Your task to perform on an android device: turn off picture-in-picture Image 0: 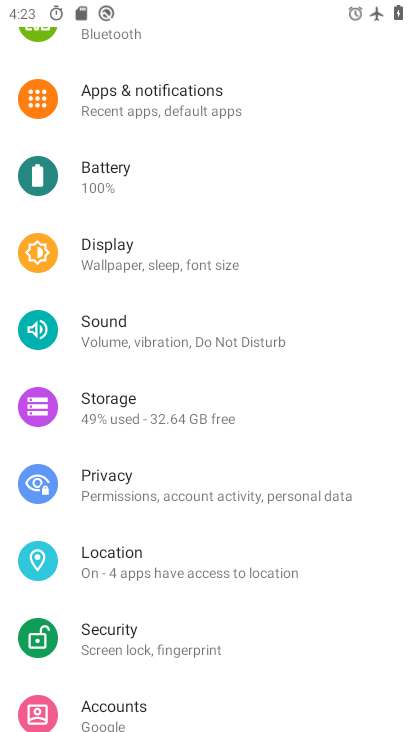
Step 0: press home button
Your task to perform on an android device: turn off picture-in-picture Image 1: 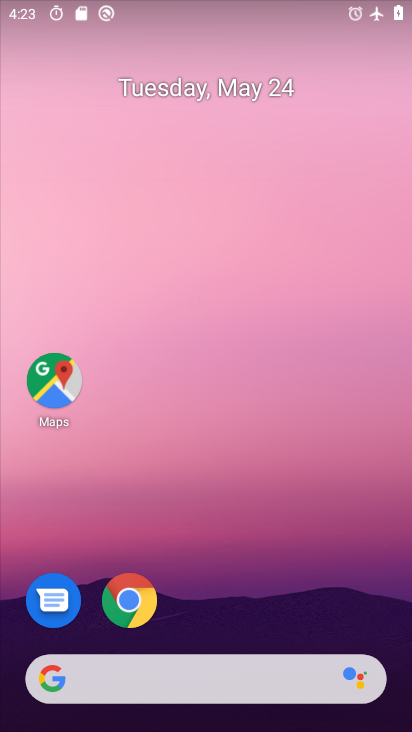
Step 1: drag from (212, 656) to (254, 61)
Your task to perform on an android device: turn off picture-in-picture Image 2: 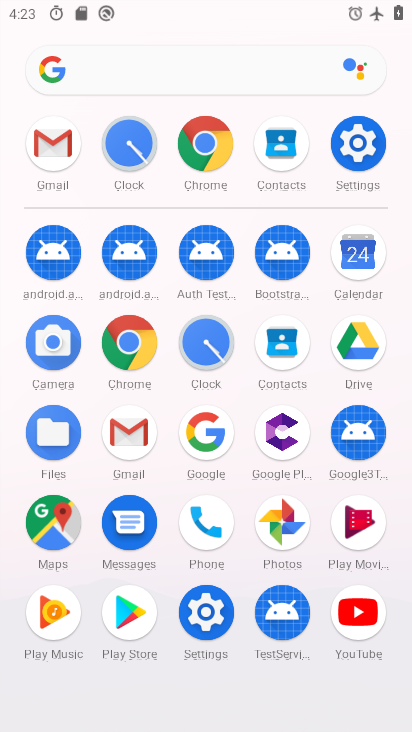
Step 2: click (346, 145)
Your task to perform on an android device: turn off picture-in-picture Image 3: 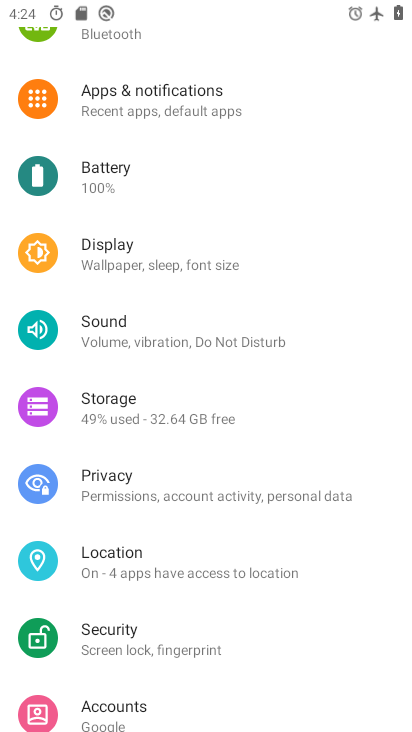
Step 3: drag from (64, 667) to (127, 117)
Your task to perform on an android device: turn off picture-in-picture Image 4: 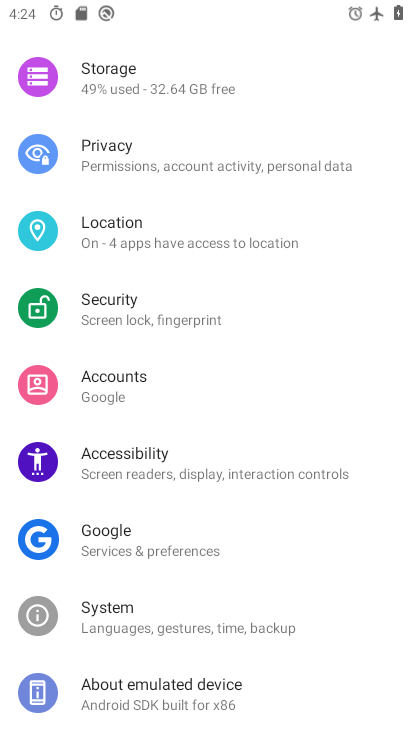
Step 4: click (102, 618)
Your task to perform on an android device: turn off picture-in-picture Image 5: 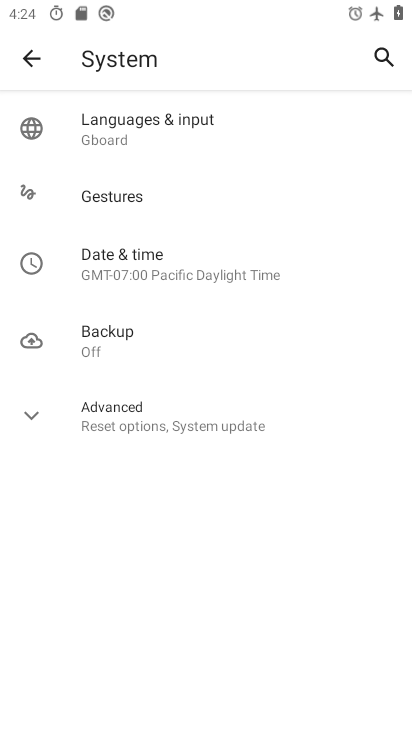
Step 5: press back button
Your task to perform on an android device: turn off picture-in-picture Image 6: 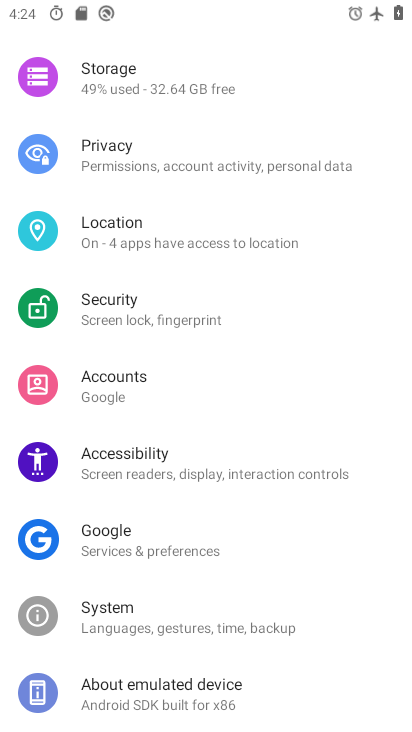
Step 6: drag from (181, 105) to (153, 723)
Your task to perform on an android device: turn off picture-in-picture Image 7: 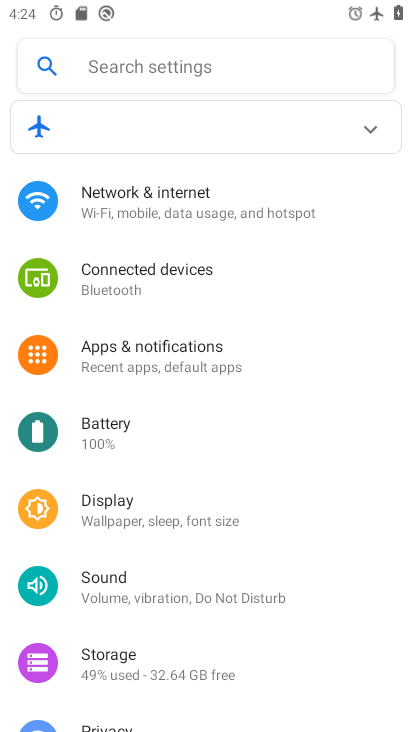
Step 7: click (166, 343)
Your task to perform on an android device: turn off picture-in-picture Image 8: 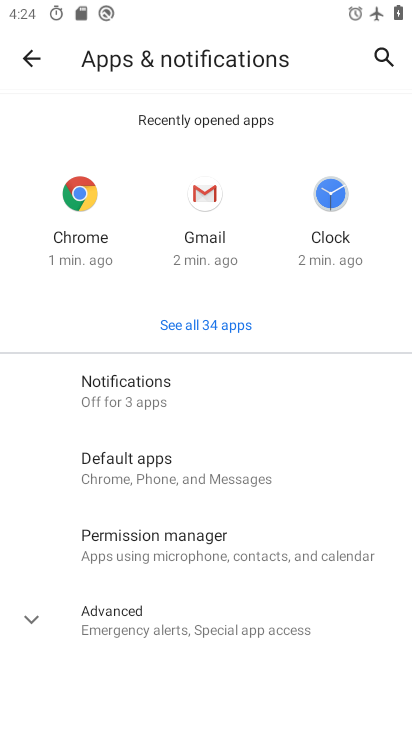
Step 8: click (158, 631)
Your task to perform on an android device: turn off picture-in-picture Image 9: 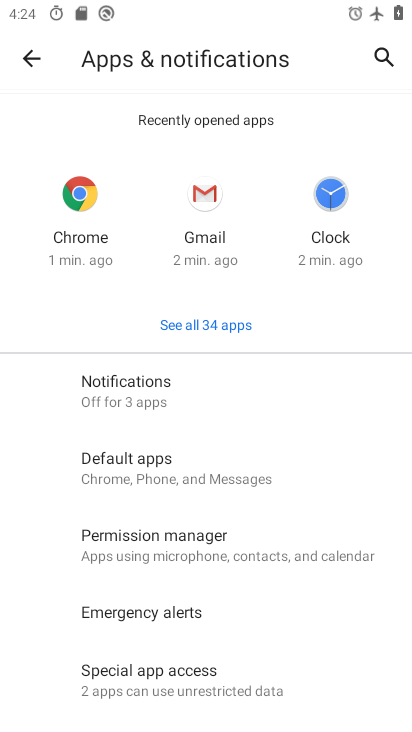
Step 9: drag from (195, 396) to (206, 347)
Your task to perform on an android device: turn off picture-in-picture Image 10: 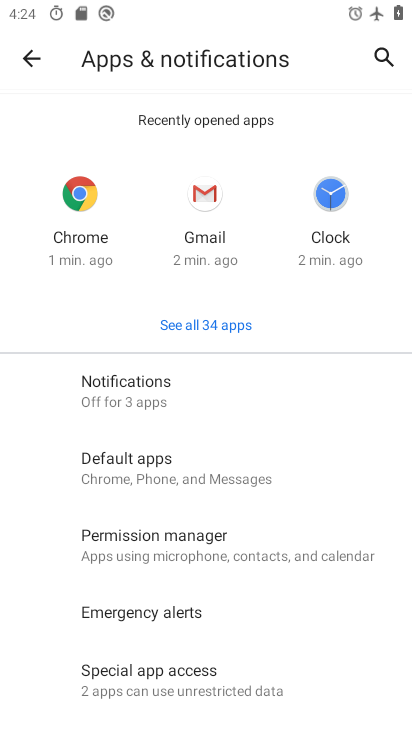
Step 10: click (115, 688)
Your task to perform on an android device: turn off picture-in-picture Image 11: 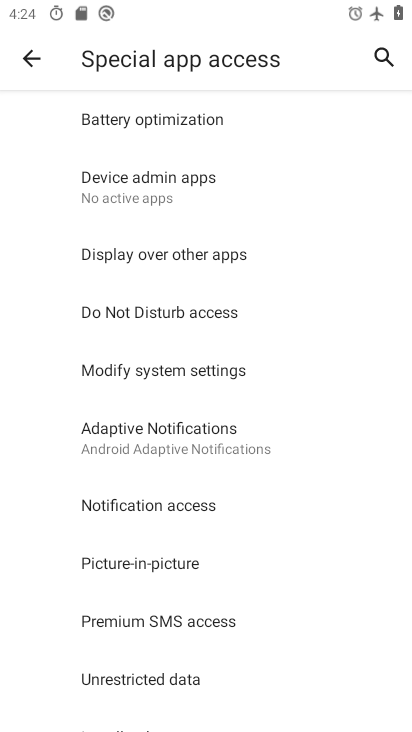
Step 11: click (139, 561)
Your task to perform on an android device: turn off picture-in-picture Image 12: 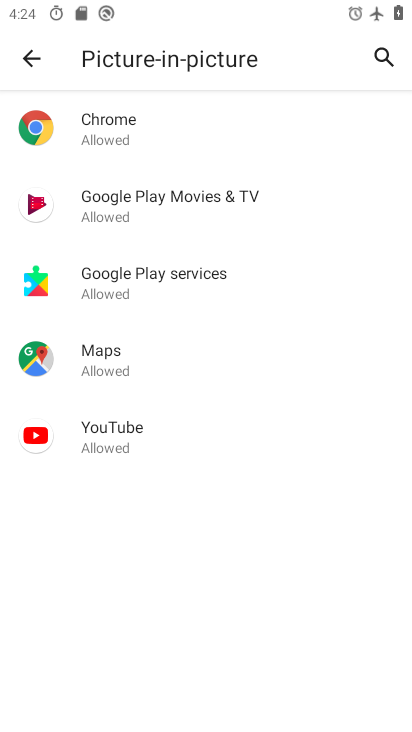
Step 12: click (93, 139)
Your task to perform on an android device: turn off picture-in-picture Image 13: 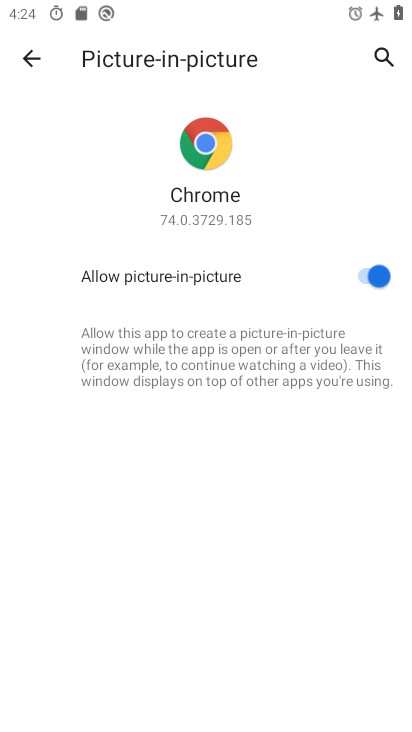
Step 13: click (365, 277)
Your task to perform on an android device: turn off picture-in-picture Image 14: 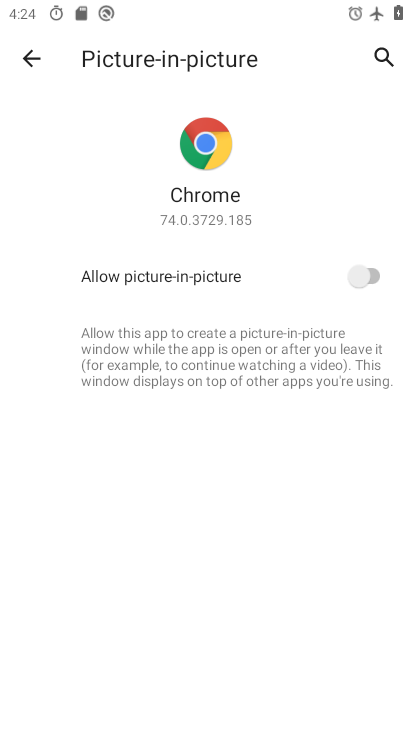
Step 14: press back button
Your task to perform on an android device: turn off picture-in-picture Image 15: 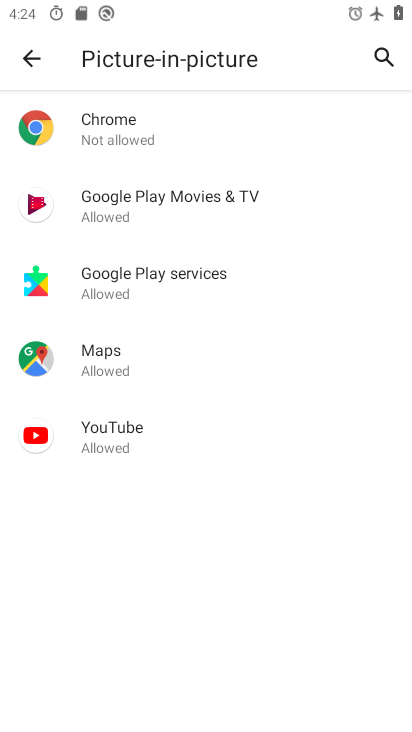
Step 15: click (271, 221)
Your task to perform on an android device: turn off picture-in-picture Image 16: 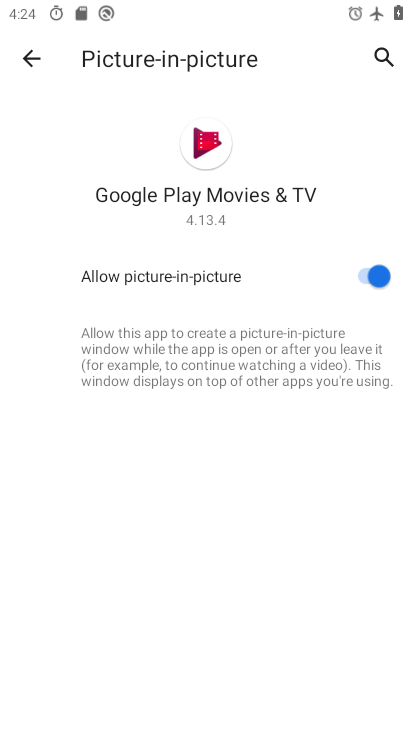
Step 16: click (368, 283)
Your task to perform on an android device: turn off picture-in-picture Image 17: 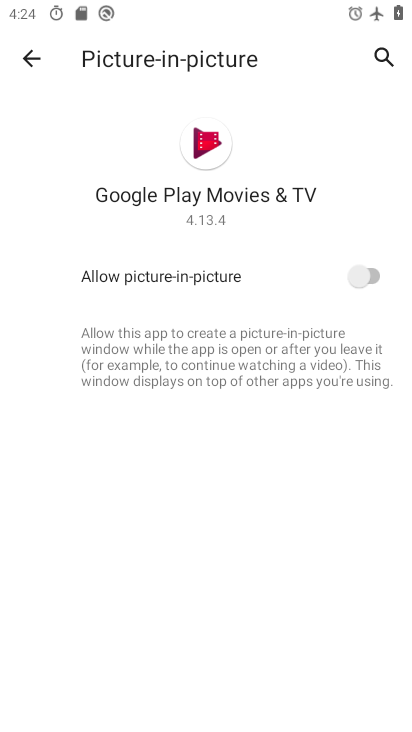
Step 17: press back button
Your task to perform on an android device: turn off picture-in-picture Image 18: 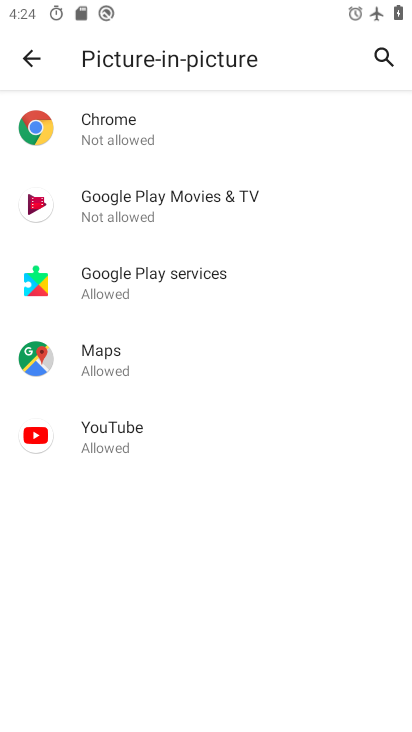
Step 18: click (215, 301)
Your task to perform on an android device: turn off picture-in-picture Image 19: 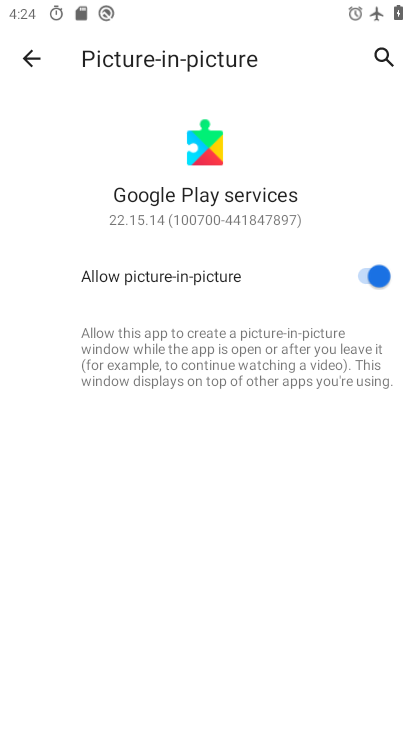
Step 19: click (369, 277)
Your task to perform on an android device: turn off picture-in-picture Image 20: 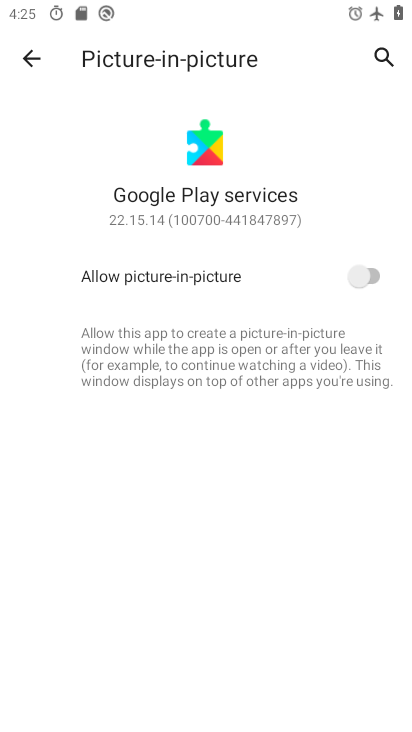
Step 20: press back button
Your task to perform on an android device: turn off picture-in-picture Image 21: 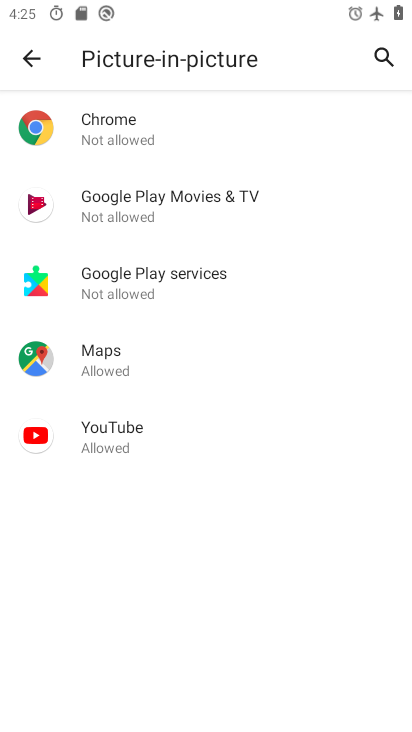
Step 21: click (212, 360)
Your task to perform on an android device: turn off picture-in-picture Image 22: 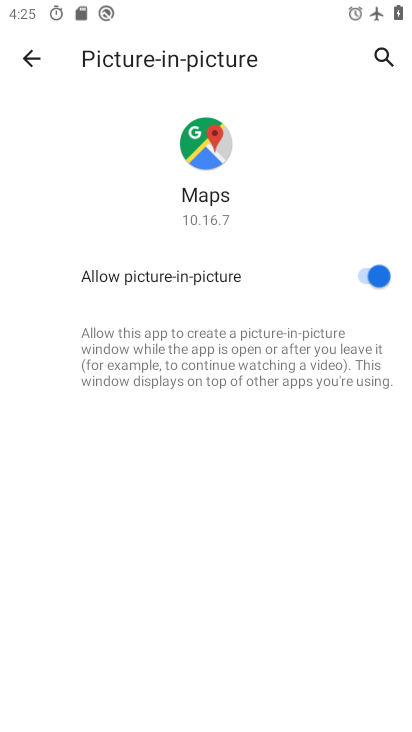
Step 22: click (370, 267)
Your task to perform on an android device: turn off picture-in-picture Image 23: 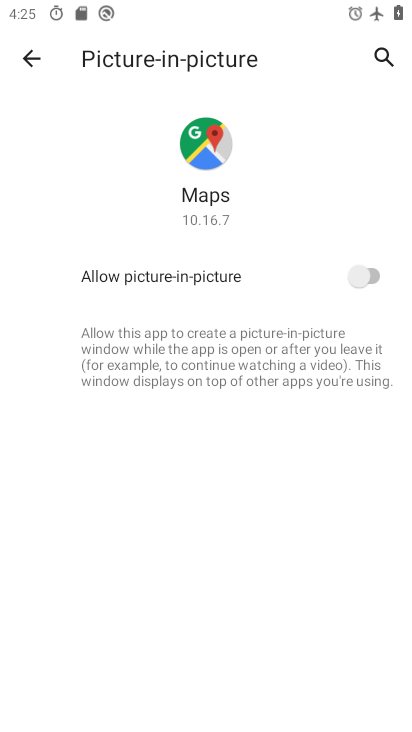
Step 23: press back button
Your task to perform on an android device: turn off picture-in-picture Image 24: 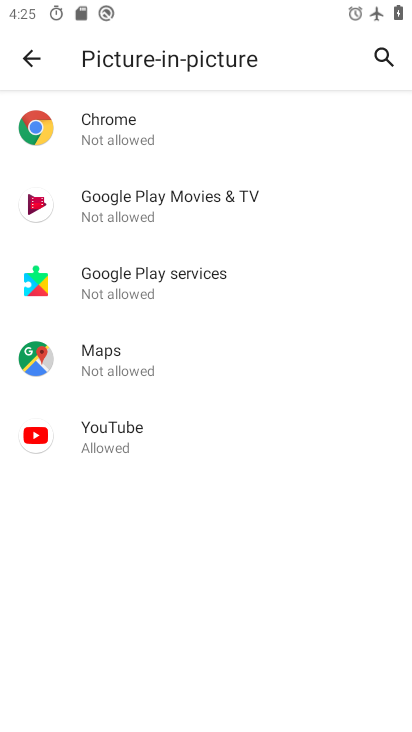
Step 24: click (154, 441)
Your task to perform on an android device: turn off picture-in-picture Image 25: 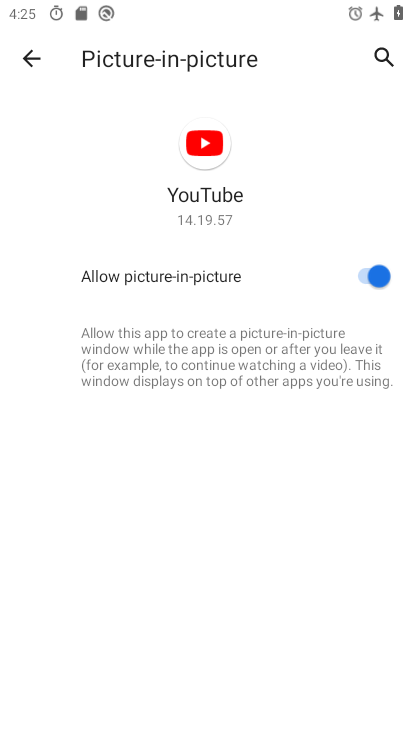
Step 25: click (372, 264)
Your task to perform on an android device: turn off picture-in-picture Image 26: 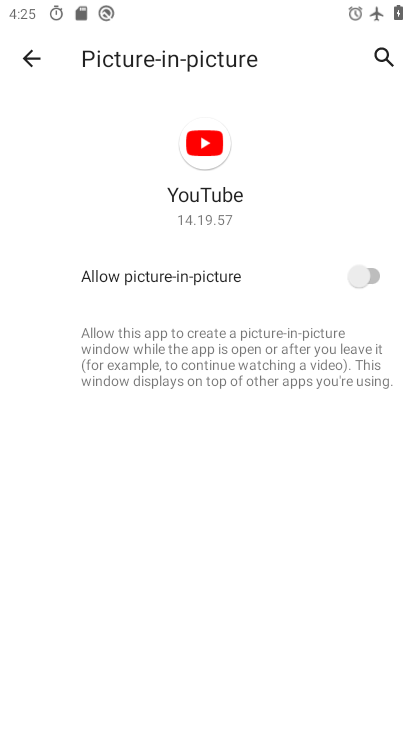
Step 26: task complete